Your task to perform on an android device: When is my next meeting? Image 0: 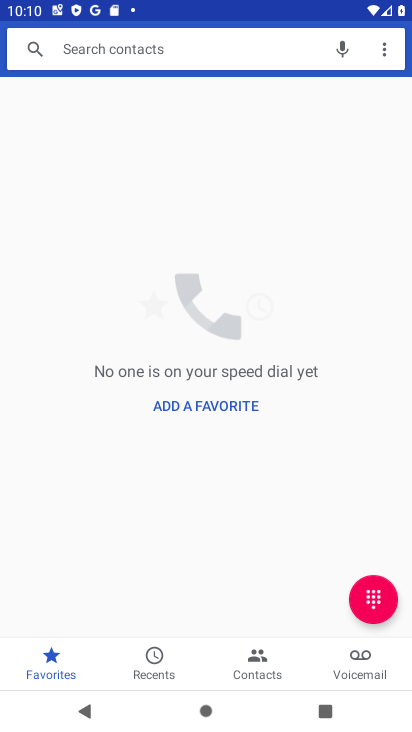
Step 0: press home button
Your task to perform on an android device: When is my next meeting? Image 1: 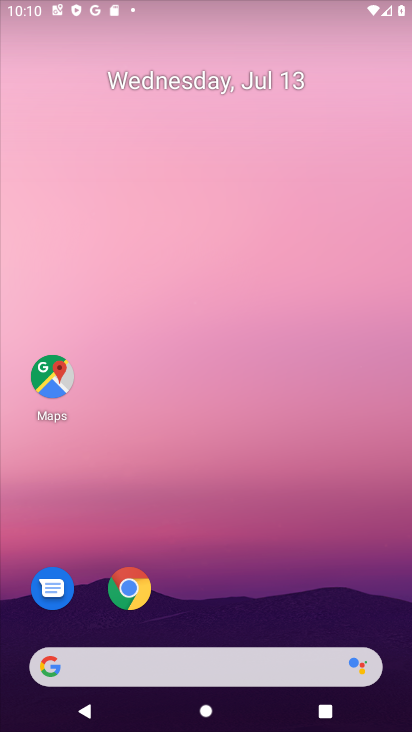
Step 1: drag from (238, 620) to (227, 67)
Your task to perform on an android device: When is my next meeting? Image 2: 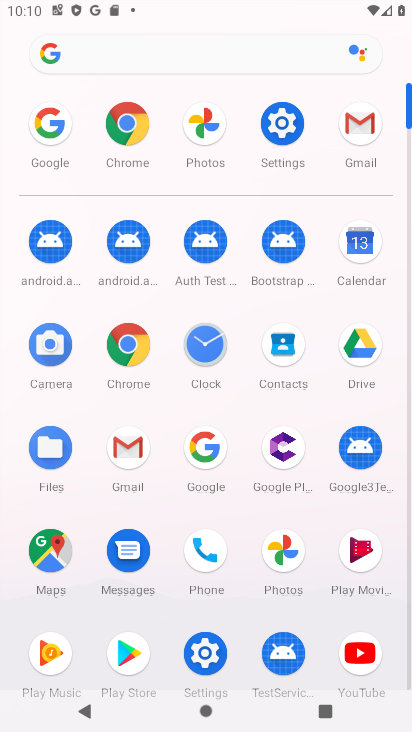
Step 2: click (360, 245)
Your task to perform on an android device: When is my next meeting? Image 3: 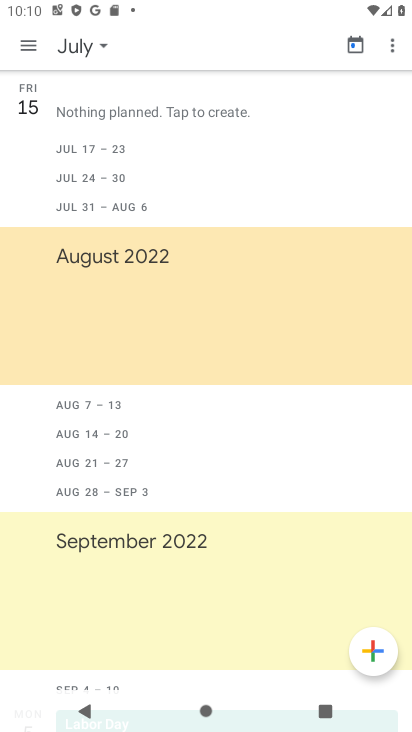
Step 3: click (95, 45)
Your task to perform on an android device: When is my next meeting? Image 4: 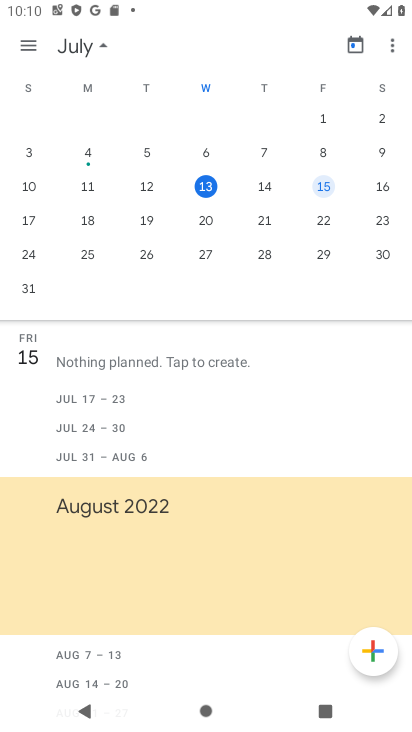
Step 4: click (266, 187)
Your task to perform on an android device: When is my next meeting? Image 5: 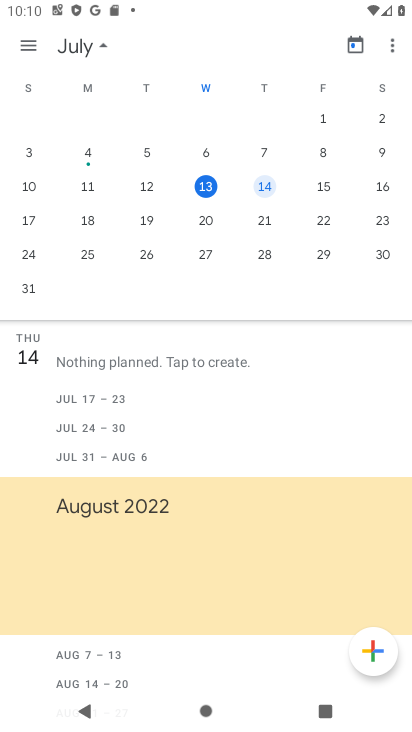
Step 5: task complete